Your task to perform on an android device: Empty the shopping cart on ebay.com. Search for lenovo thinkpad on ebay.com, select the first entry, add it to the cart, then select checkout. Image 0: 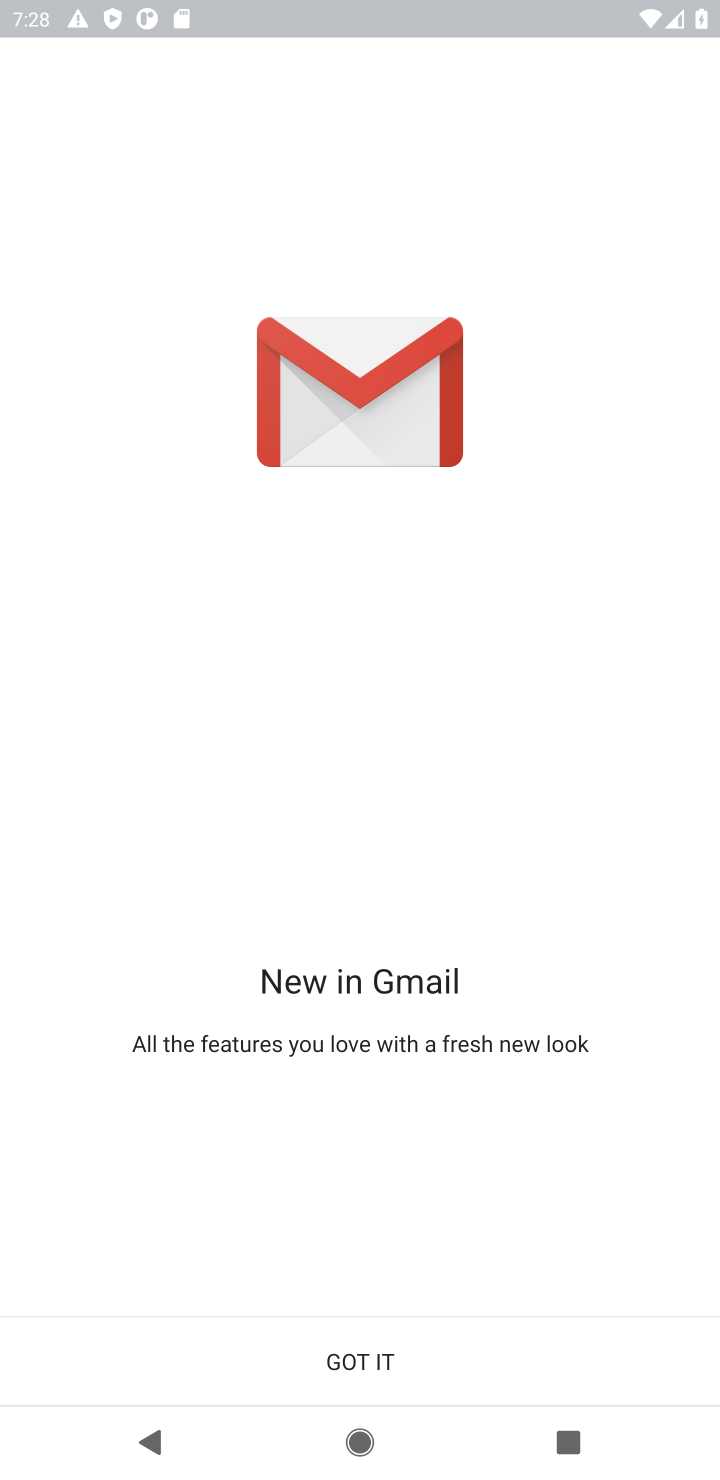
Step 0: press home button
Your task to perform on an android device: Empty the shopping cart on ebay.com. Search for lenovo thinkpad on ebay.com, select the first entry, add it to the cart, then select checkout. Image 1: 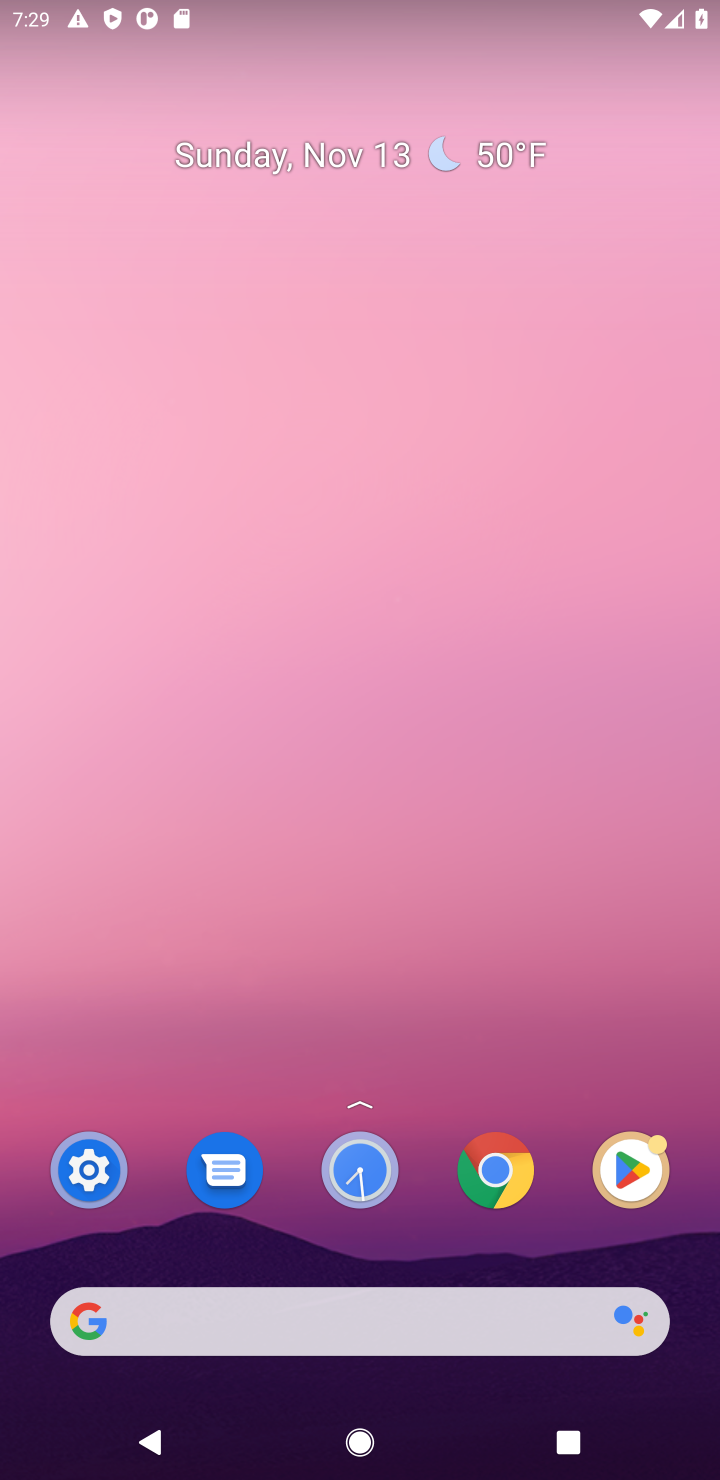
Step 1: click (222, 1316)
Your task to perform on an android device: Empty the shopping cart on ebay.com. Search for lenovo thinkpad on ebay.com, select the first entry, add it to the cart, then select checkout. Image 2: 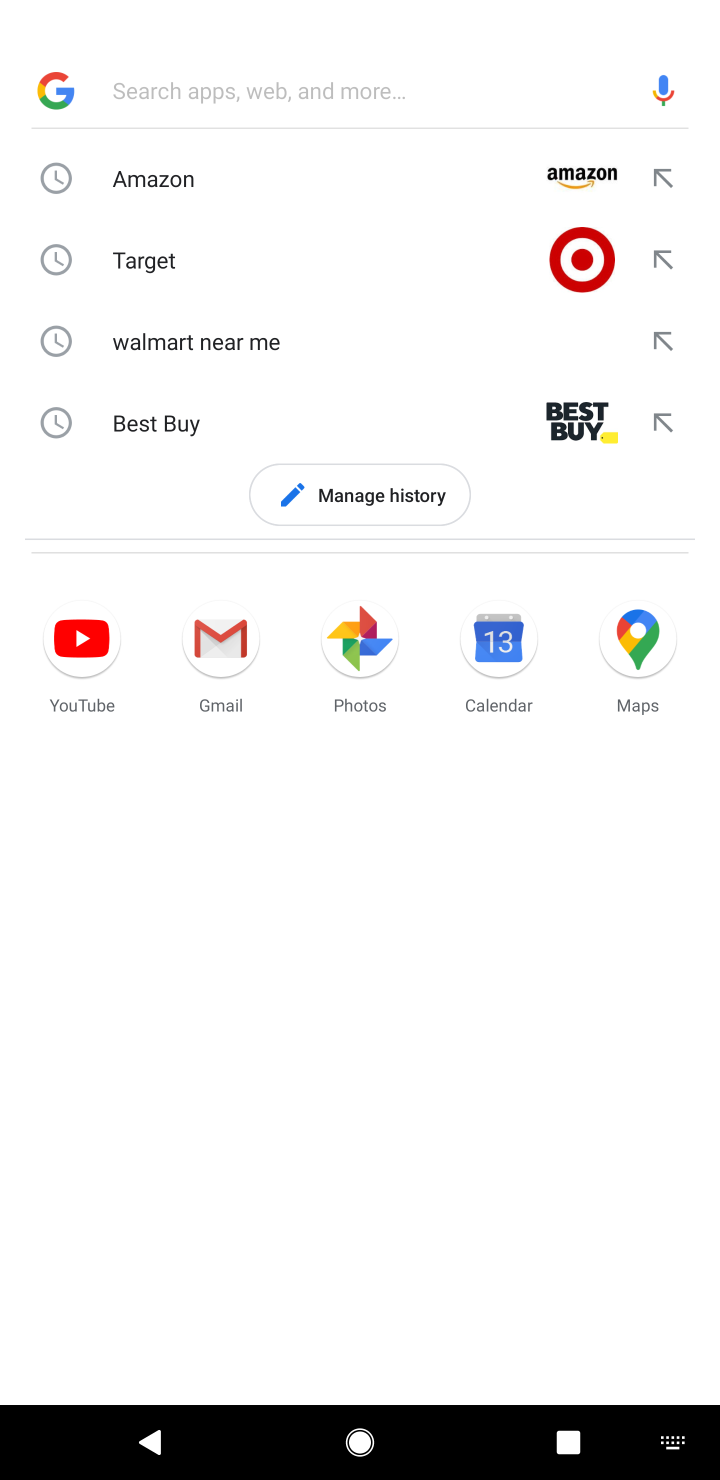
Step 2: type "ebay.com"
Your task to perform on an android device: Empty the shopping cart on ebay.com. Search for lenovo thinkpad on ebay.com, select the first entry, add it to the cart, then select checkout. Image 3: 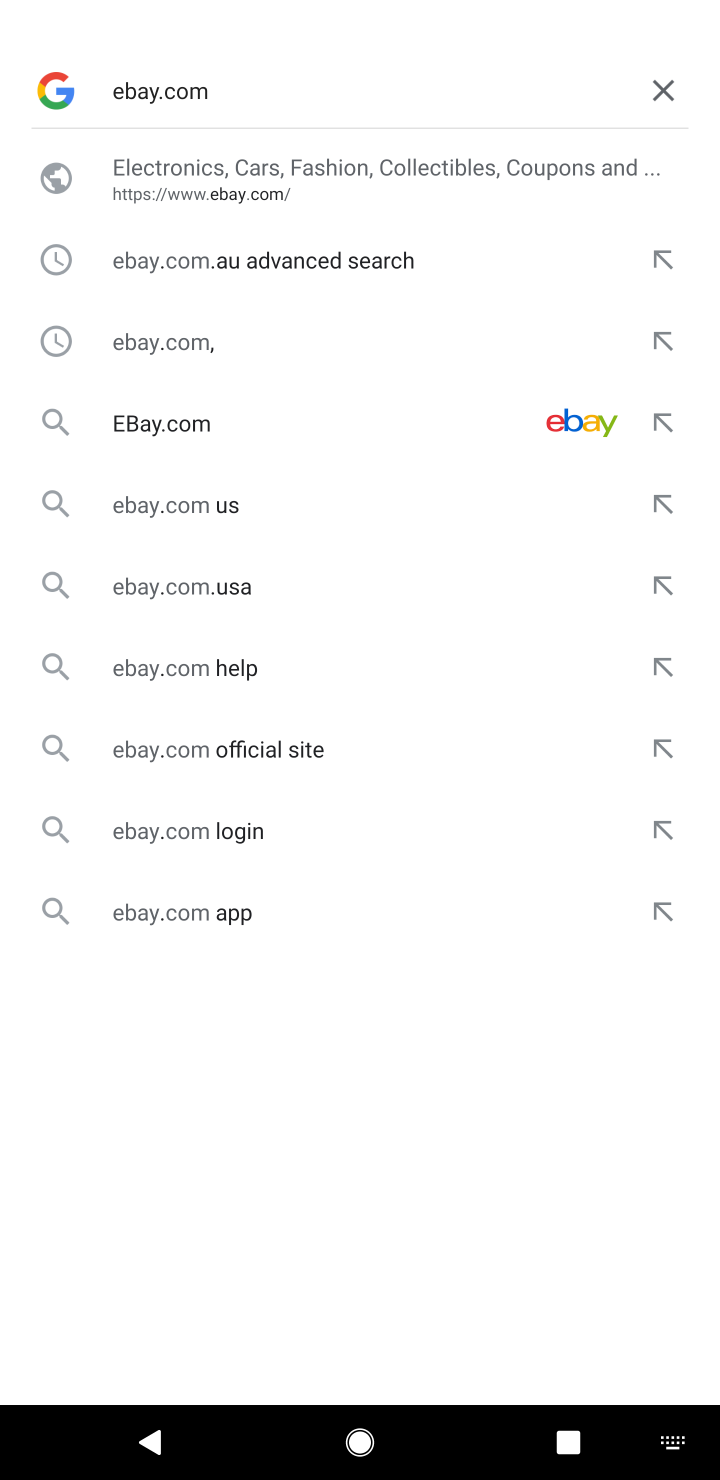
Step 3: click (290, 190)
Your task to perform on an android device: Empty the shopping cart on ebay.com. Search for lenovo thinkpad on ebay.com, select the first entry, add it to the cart, then select checkout. Image 4: 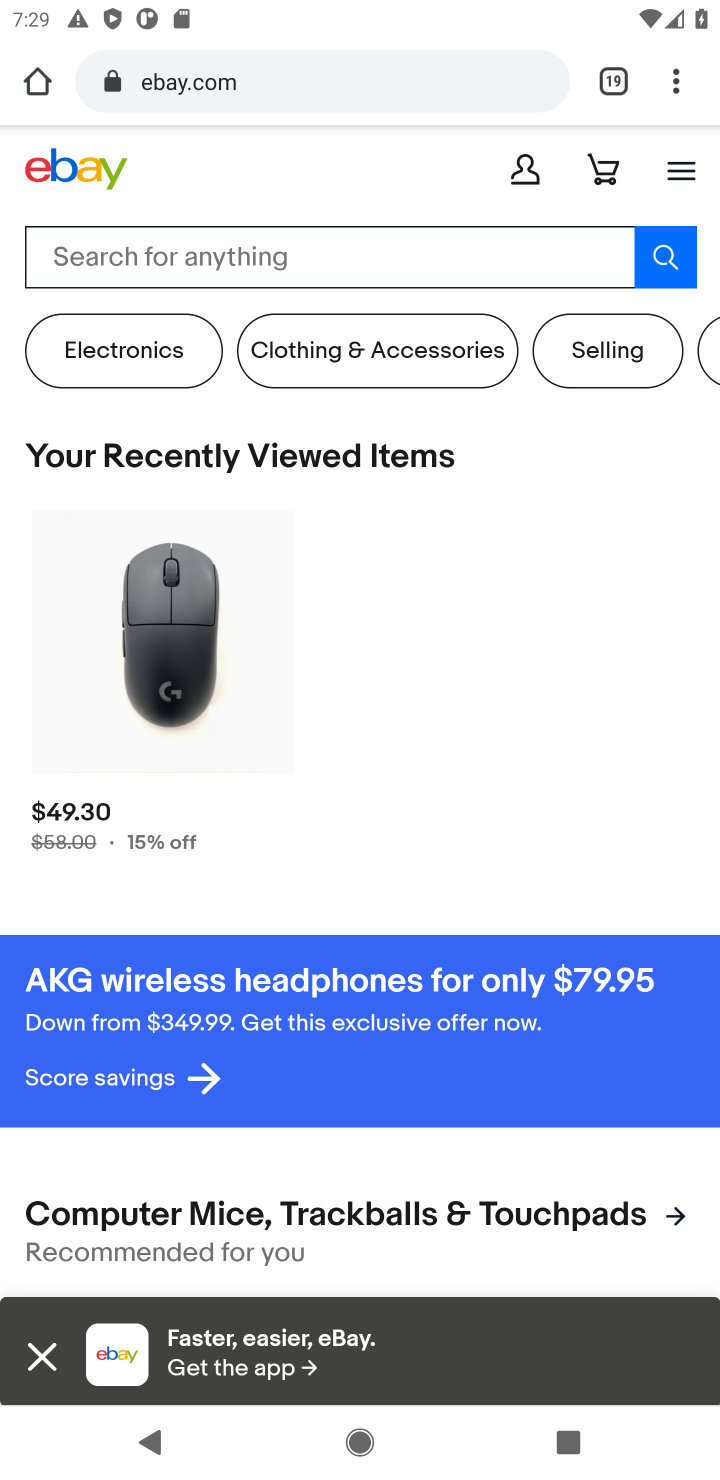
Step 4: task complete